Your task to perform on an android device: Show me productivity apps on the Play Store Image 0: 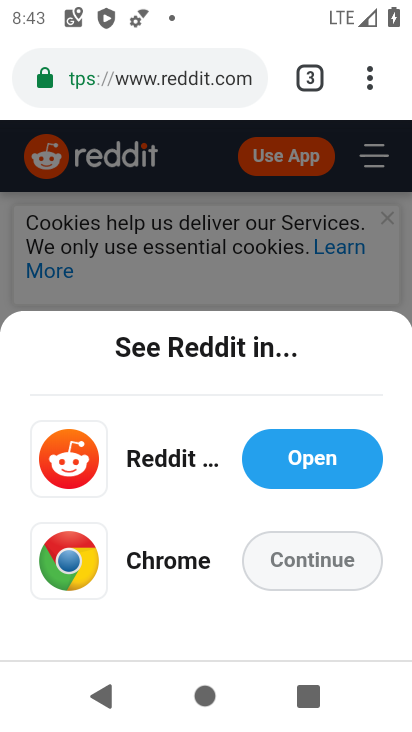
Step 0: press back button
Your task to perform on an android device: Show me productivity apps on the Play Store Image 1: 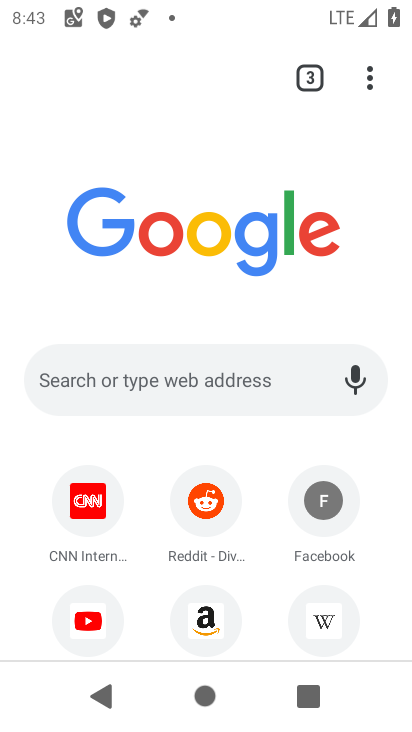
Step 1: press back button
Your task to perform on an android device: Show me productivity apps on the Play Store Image 2: 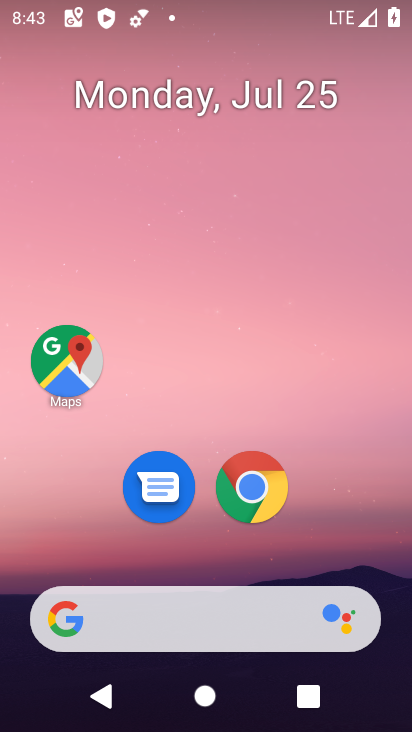
Step 2: drag from (163, 586) to (240, 3)
Your task to perform on an android device: Show me productivity apps on the Play Store Image 3: 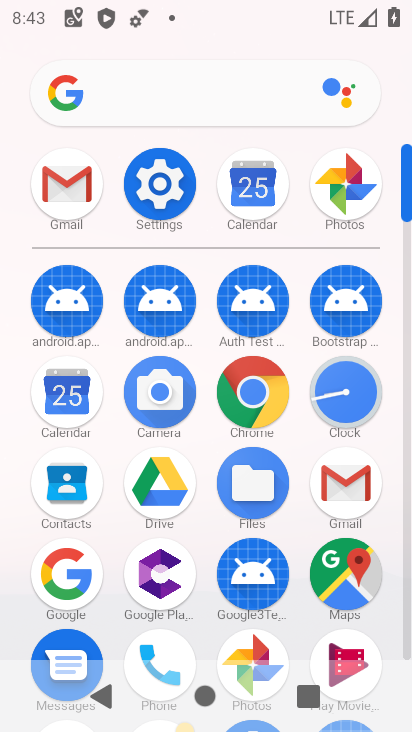
Step 3: drag from (227, 560) to (358, 41)
Your task to perform on an android device: Show me productivity apps on the Play Store Image 4: 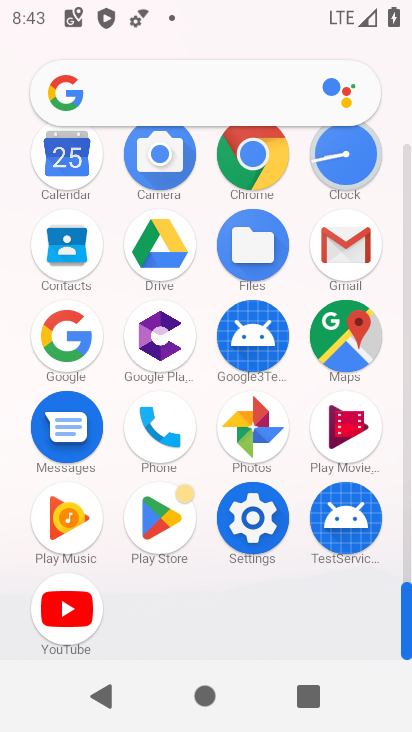
Step 4: click (164, 523)
Your task to perform on an android device: Show me productivity apps on the Play Store Image 5: 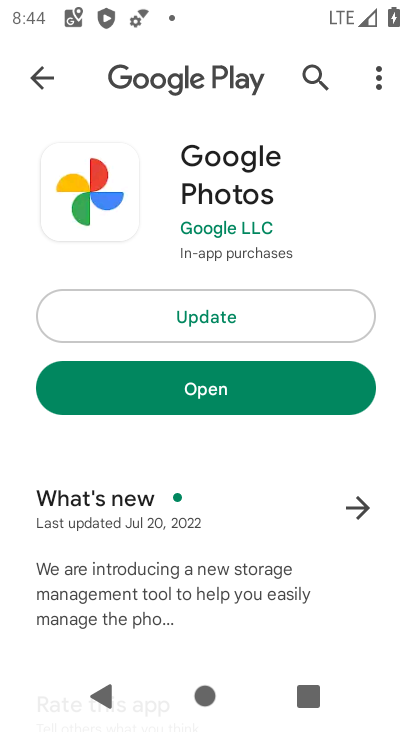
Step 5: click (22, 84)
Your task to perform on an android device: Show me productivity apps on the Play Store Image 6: 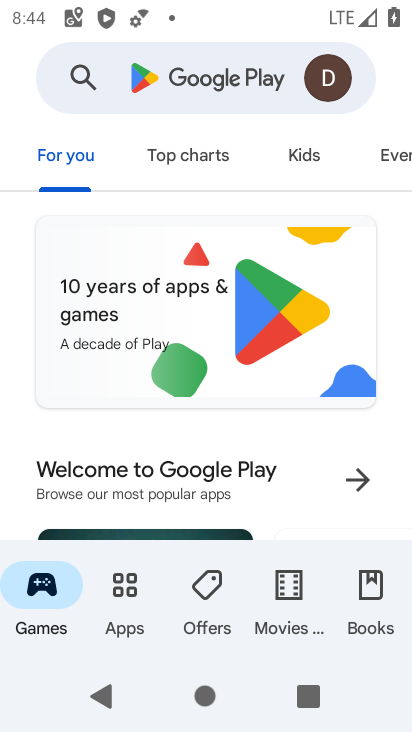
Step 6: click (121, 577)
Your task to perform on an android device: Show me productivity apps on the Play Store Image 7: 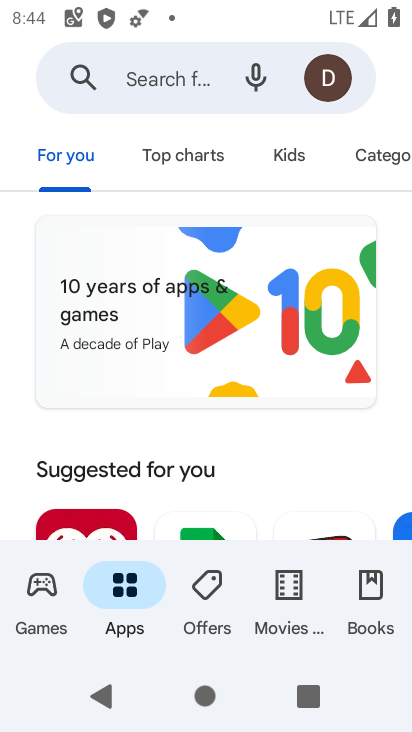
Step 7: drag from (179, 509) to (258, 6)
Your task to perform on an android device: Show me productivity apps on the Play Store Image 8: 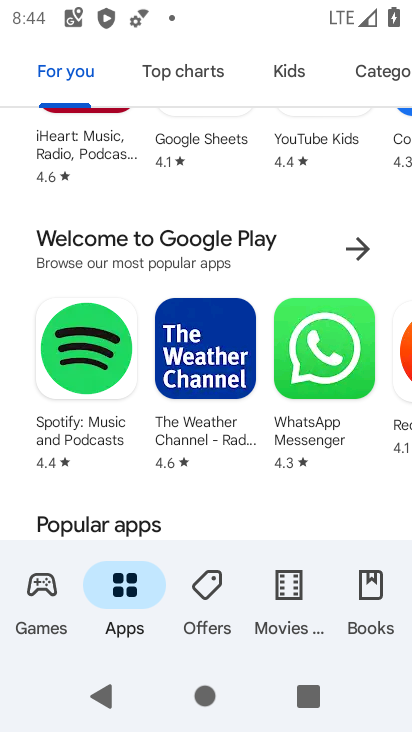
Step 8: drag from (183, 511) to (278, 0)
Your task to perform on an android device: Show me productivity apps on the Play Store Image 9: 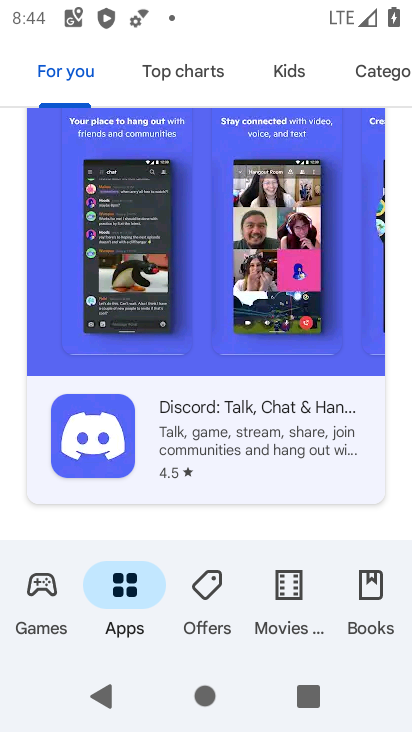
Step 9: drag from (189, 484) to (265, 50)
Your task to perform on an android device: Show me productivity apps on the Play Store Image 10: 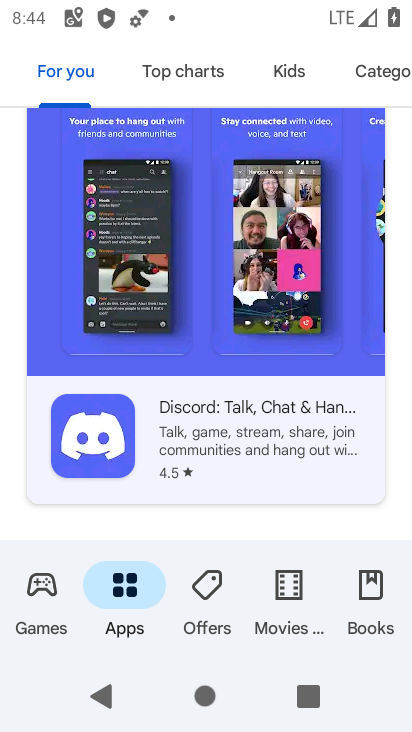
Step 10: drag from (195, 492) to (269, 33)
Your task to perform on an android device: Show me productivity apps on the Play Store Image 11: 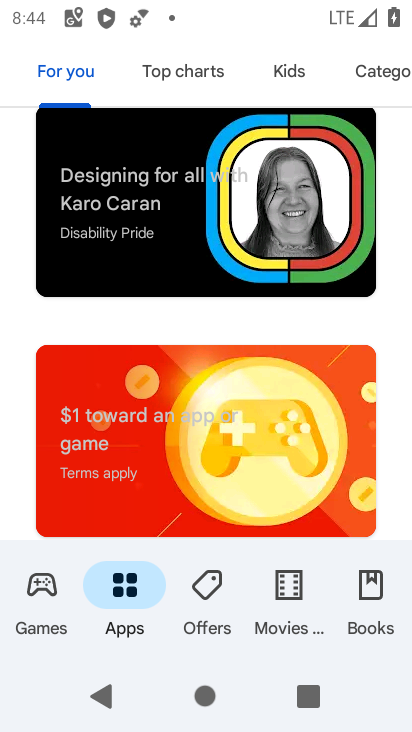
Step 11: drag from (141, 516) to (237, 0)
Your task to perform on an android device: Show me productivity apps on the Play Store Image 12: 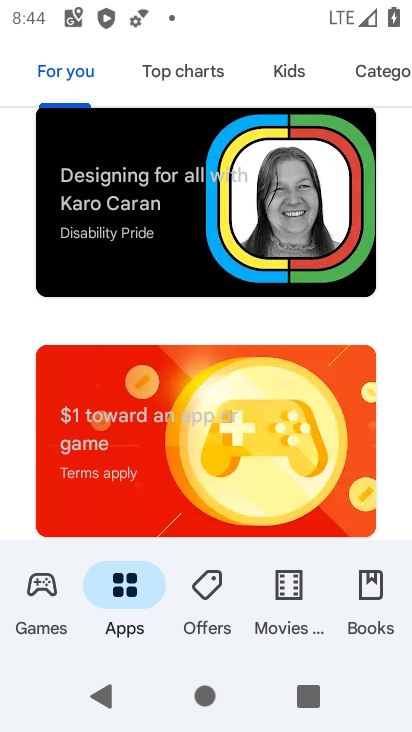
Step 12: drag from (218, 505) to (263, 58)
Your task to perform on an android device: Show me productivity apps on the Play Store Image 13: 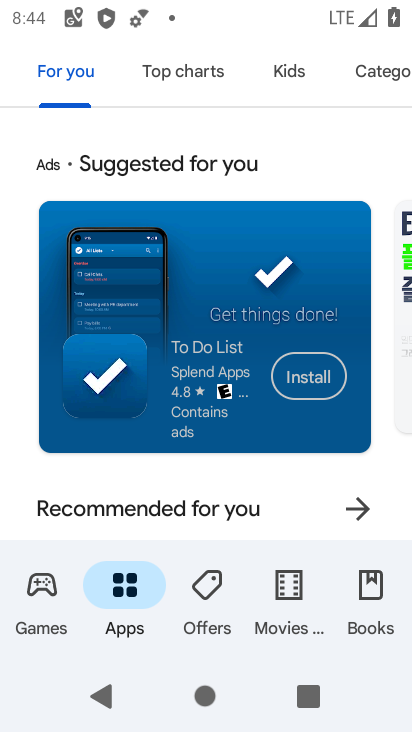
Step 13: drag from (210, 450) to (285, 11)
Your task to perform on an android device: Show me productivity apps on the Play Store Image 14: 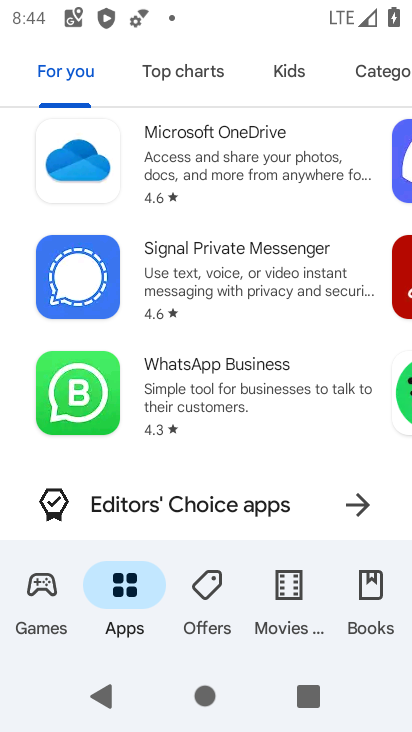
Step 14: drag from (204, 443) to (281, 55)
Your task to perform on an android device: Show me productivity apps on the Play Store Image 15: 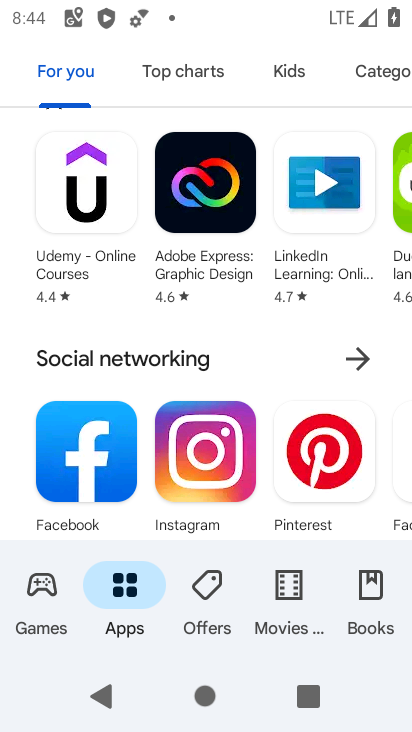
Step 15: drag from (211, 456) to (273, 22)
Your task to perform on an android device: Show me productivity apps on the Play Store Image 16: 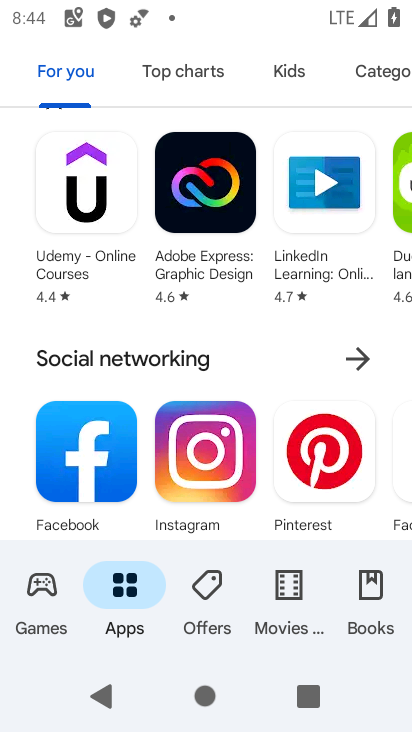
Step 16: drag from (247, 484) to (308, 46)
Your task to perform on an android device: Show me productivity apps on the Play Store Image 17: 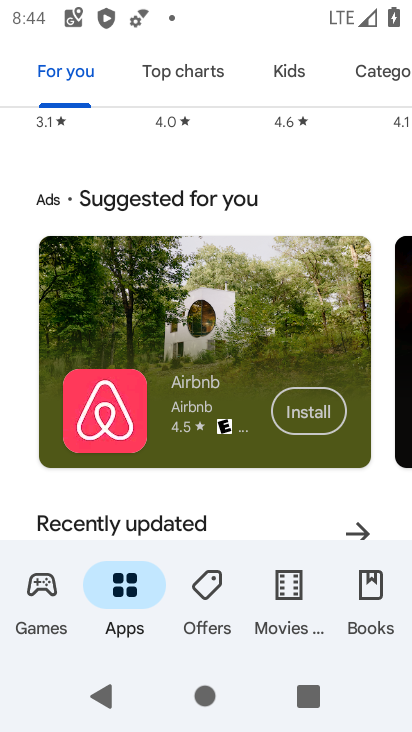
Step 17: drag from (235, 482) to (306, 31)
Your task to perform on an android device: Show me productivity apps on the Play Store Image 18: 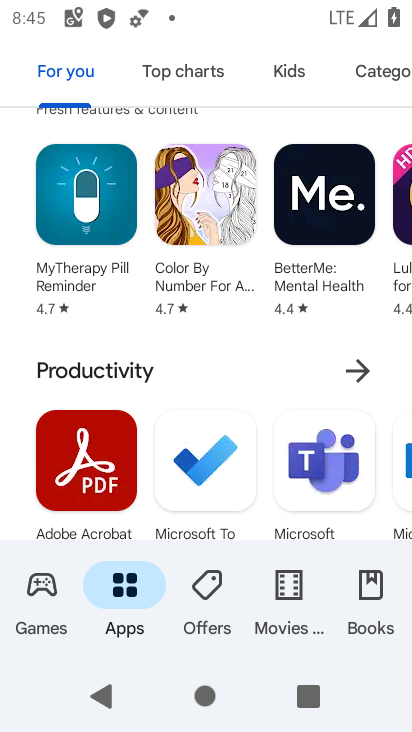
Step 18: click (350, 366)
Your task to perform on an android device: Show me productivity apps on the Play Store Image 19: 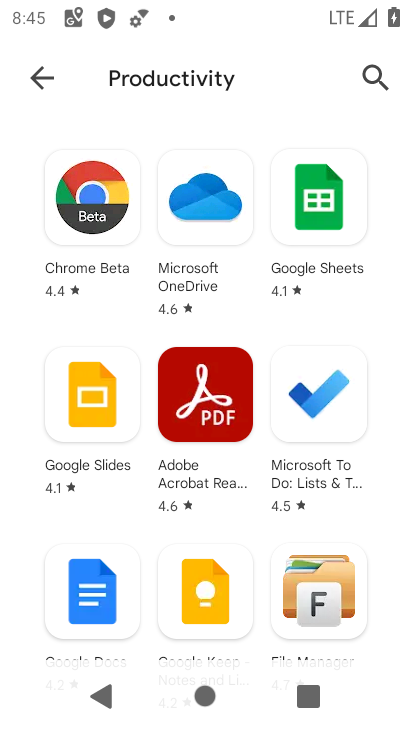
Step 19: task complete